Your task to perform on an android device: Go to accessibility settings Image 0: 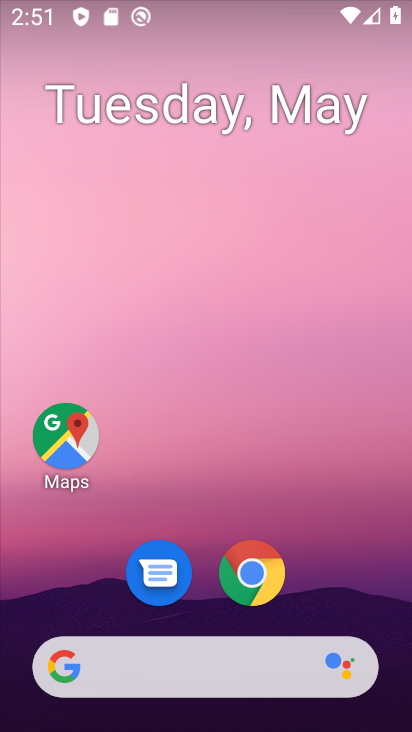
Step 0: drag from (361, 570) to (282, 57)
Your task to perform on an android device: Go to accessibility settings Image 1: 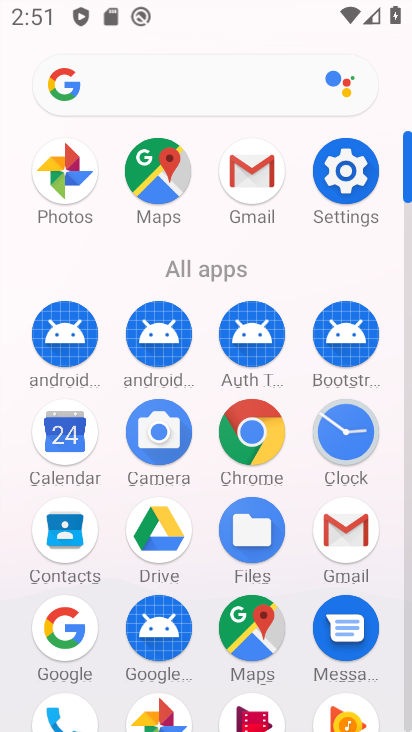
Step 1: drag from (11, 626) to (22, 291)
Your task to perform on an android device: Go to accessibility settings Image 2: 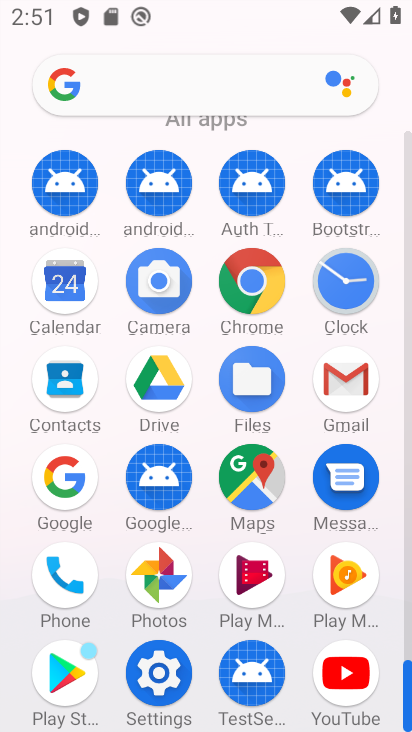
Step 2: drag from (5, 566) to (11, 210)
Your task to perform on an android device: Go to accessibility settings Image 3: 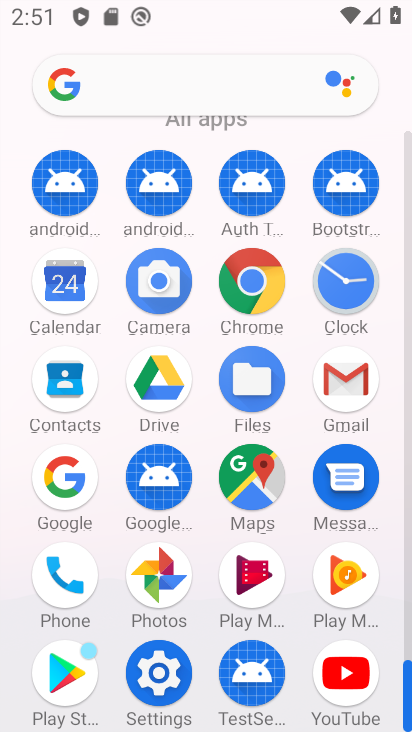
Step 3: click (160, 674)
Your task to perform on an android device: Go to accessibility settings Image 4: 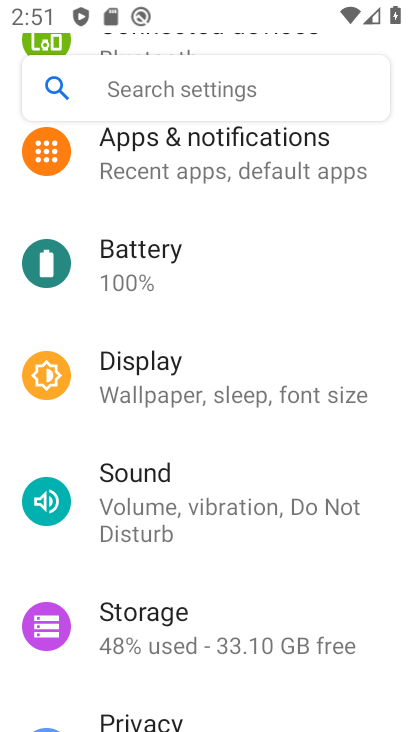
Step 4: drag from (246, 619) to (291, 150)
Your task to perform on an android device: Go to accessibility settings Image 5: 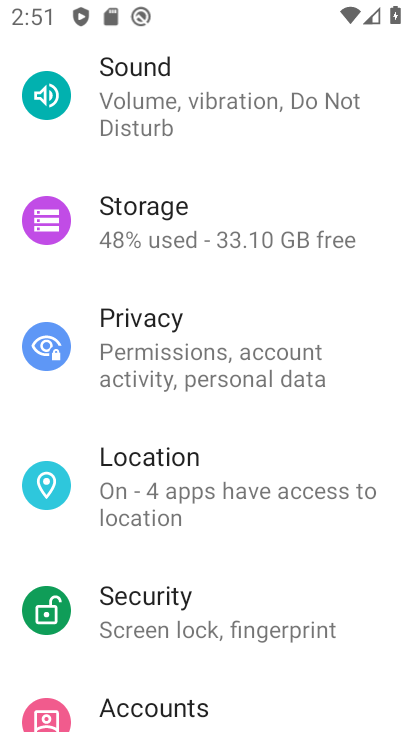
Step 5: drag from (238, 607) to (243, 116)
Your task to perform on an android device: Go to accessibility settings Image 6: 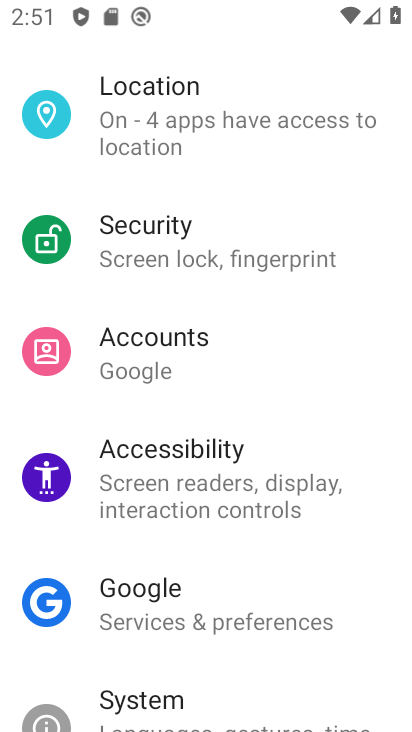
Step 6: drag from (224, 255) to (164, 688)
Your task to perform on an android device: Go to accessibility settings Image 7: 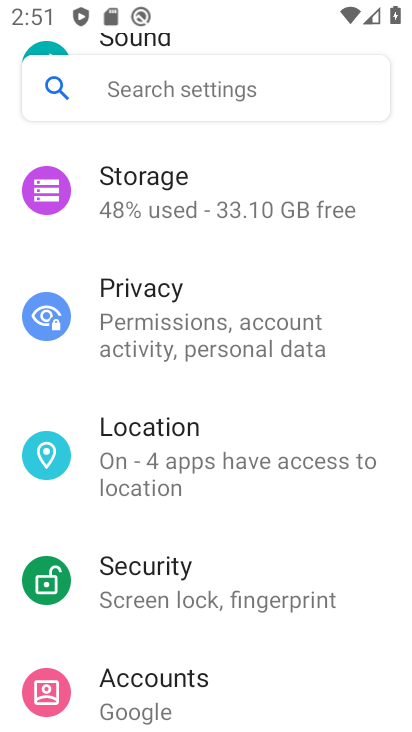
Step 7: drag from (202, 233) to (206, 622)
Your task to perform on an android device: Go to accessibility settings Image 8: 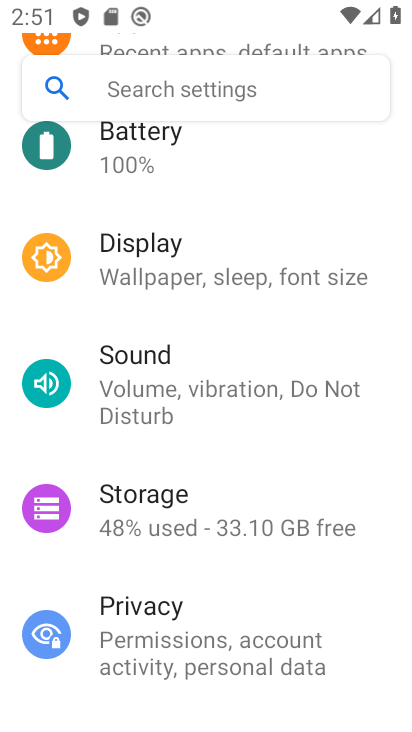
Step 8: drag from (284, 275) to (272, 669)
Your task to perform on an android device: Go to accessibility settings Image 9: 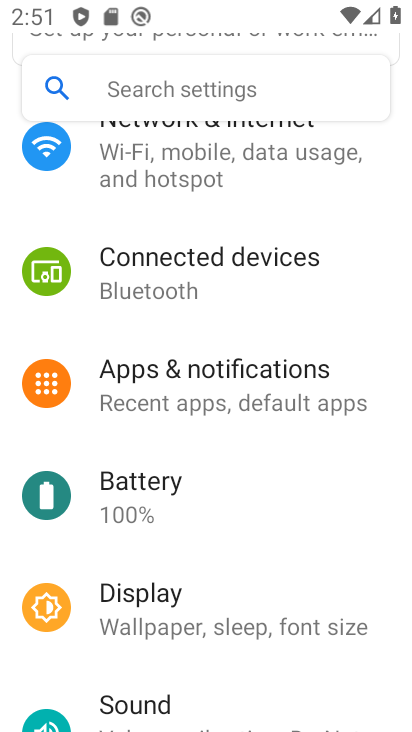
Step 9: drag from (236, 256) to (229, 680)
Your task to perform on an android device: Go to accessibility settings Image 10: 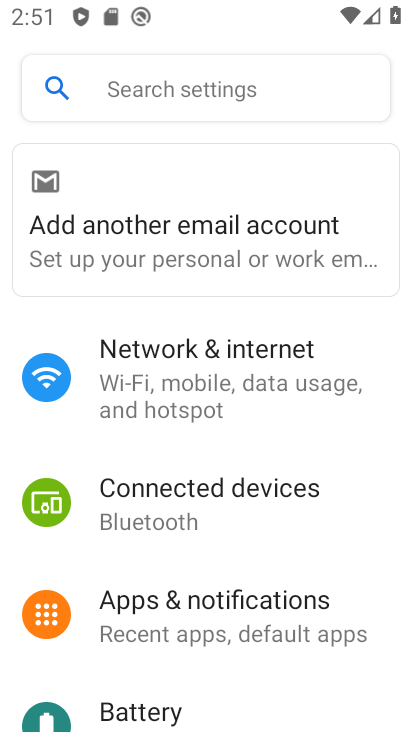
Step 10: drag from (230, 658) to (296, 151)
Your task to perform on an android device: Go to accessibility settings Image 11: 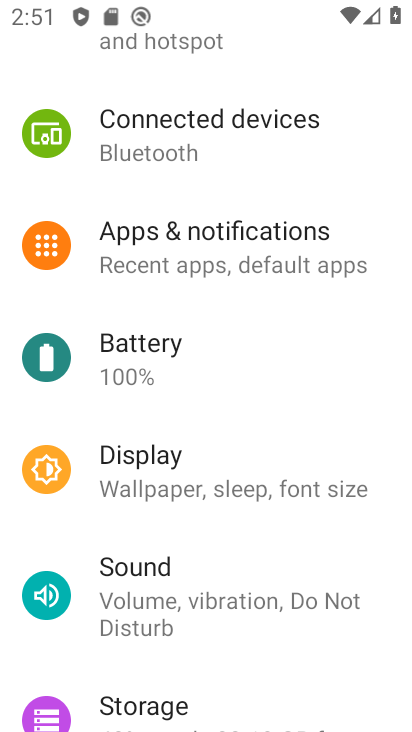
Step 11: drag from (221, 628) to (294, 115)
Your task to perform on an android device: Go to accessibility settings Image 12: 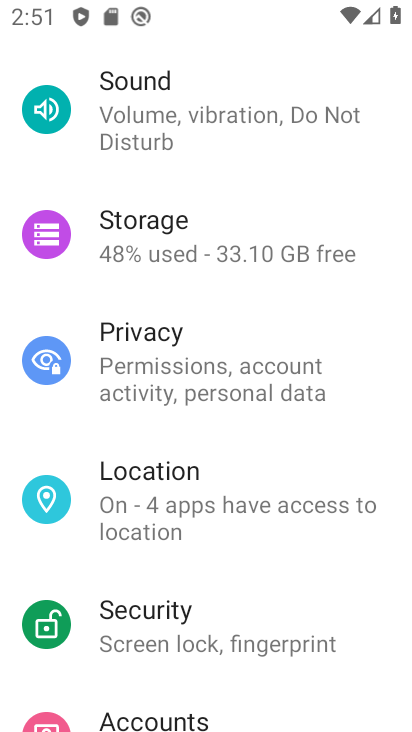
Step 12: drag from (203, 524) to (245, 107)
Your task to perform on an android device: Go to accessibility settings Image 13: 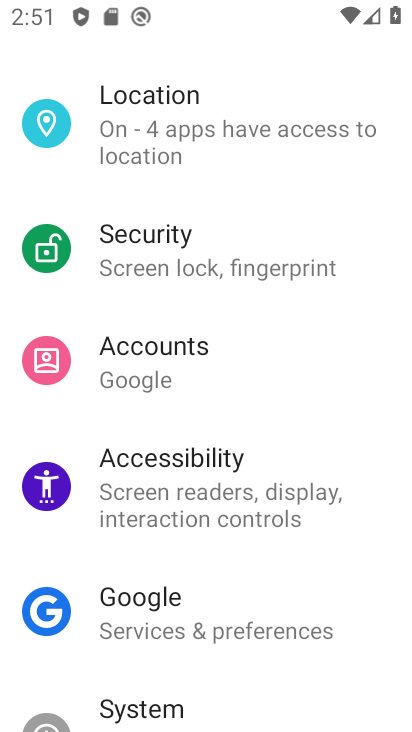
Step 13: click (225, 473)
Your task to perform on an android device: Go to accessibility settings Image 14: 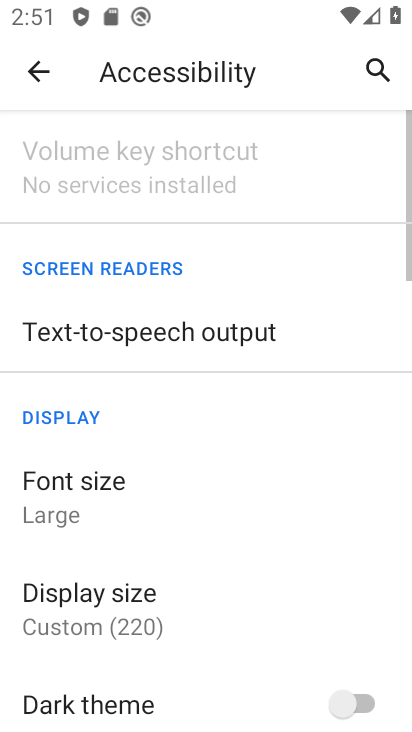
Step 14: task complete